Your task to perform on an android device: Open ESPN.com Image 0: 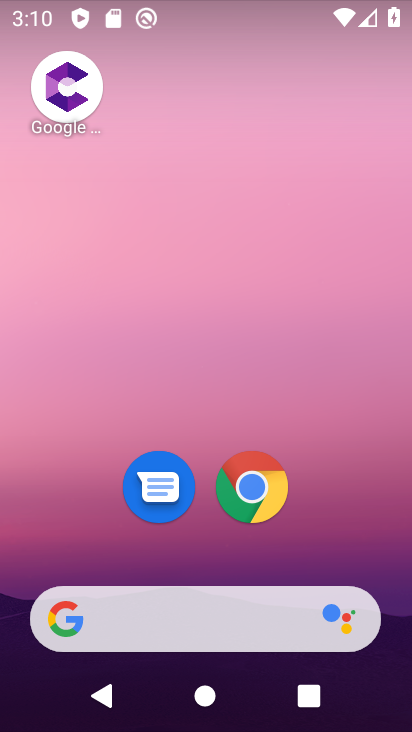
Step 0: drag from (317, 557) to (240, 76)
Your task to perform on an android device: Open ESPN.com Image 1: 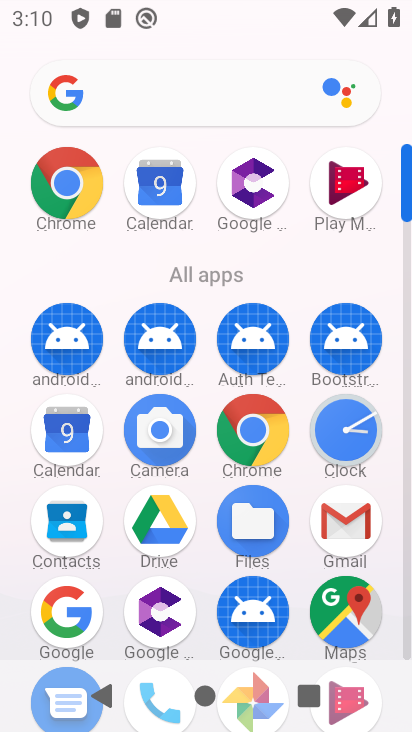
Step 1: click (249, 419)
Your task to perform on an android device: Open ESPN.com Image 2: 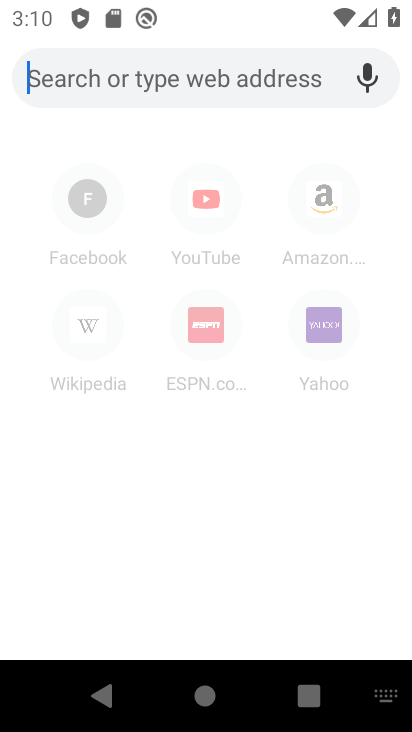
Step 2: click (234, 91)
Your task to perform on an android device: Open ESPN.com Image 3: 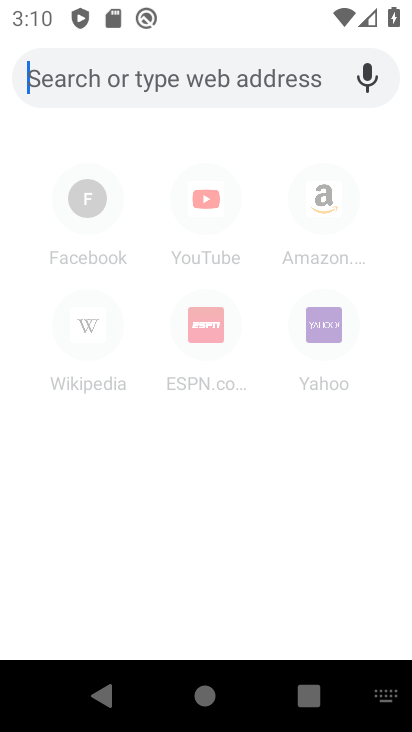
Step 3: type "espn.com"
Your task to perform on an android device: Open ESPN.com Image 4: 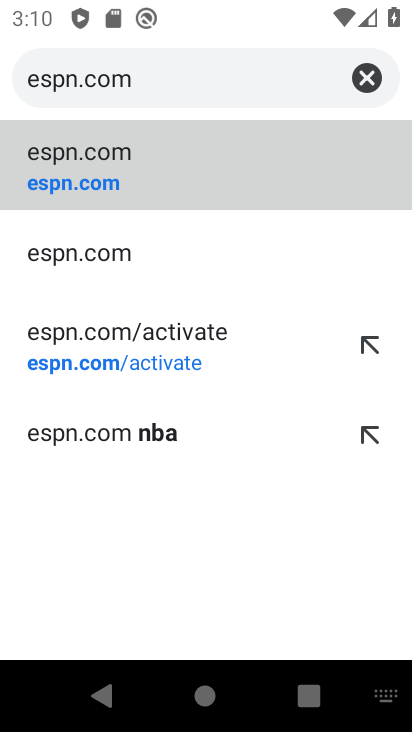
Step 4: click (150, 190)
Your task to perform on an android device: Open ESPN.com Image 5: 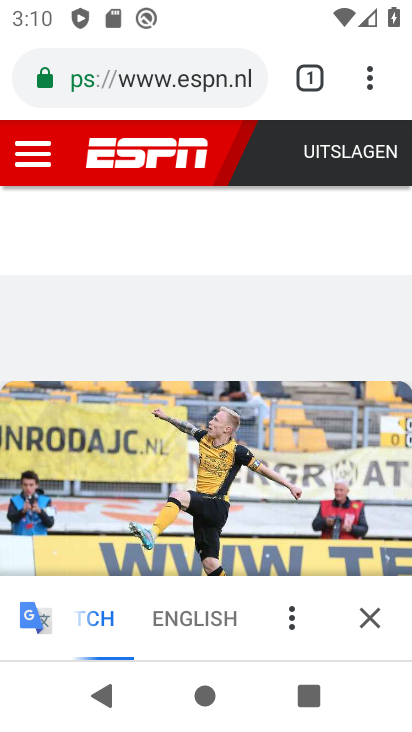
Step 5: task complete